Your task to perform on an android device: empty trash in the gmail app Image 0: 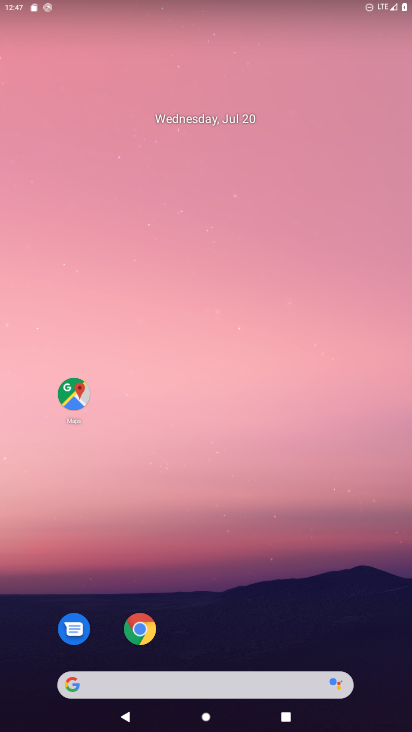
Step 0: drag from (174, 396) to (169, 149)
Your task to perform on an android device: empty trash in the gmail app Image 1: 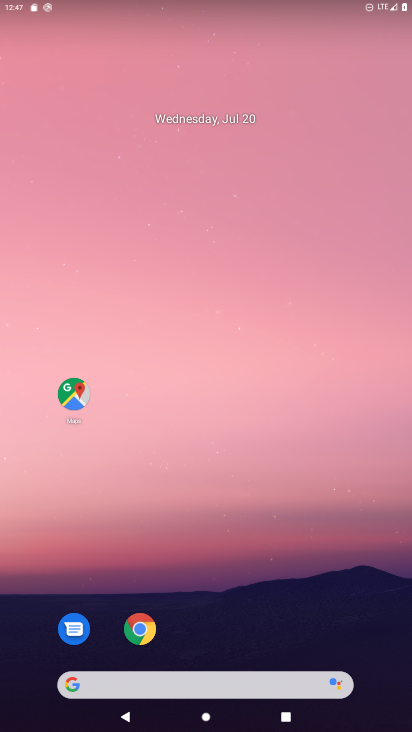
Step 1: drag from (184, 575) to (148, 114)
Your task to perform on an android device: empty trash in the gmail app Image 2: 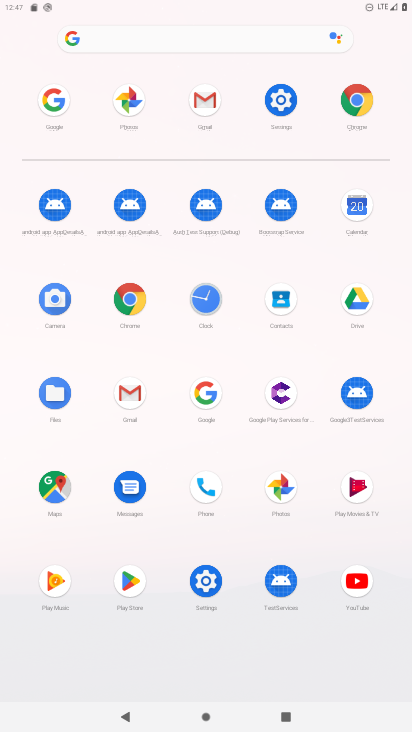
Step 2: click (203, 105)
Your task to perform on an android device: empty trash in the gmail app Image 3: 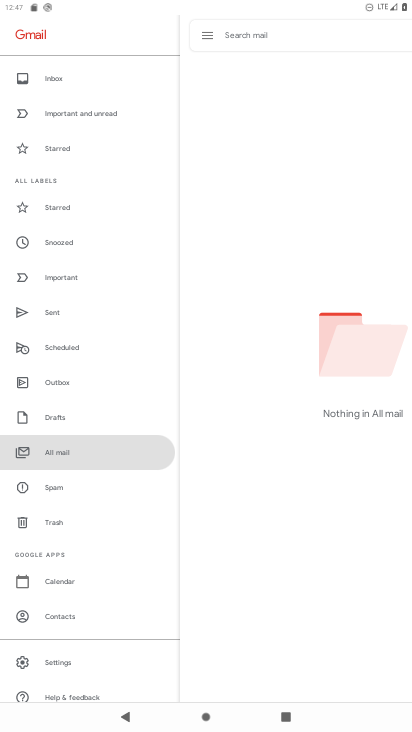
Step 3: click (57, 523)
Your task to perform on an android device: empty trash in the gmail app Image 4: 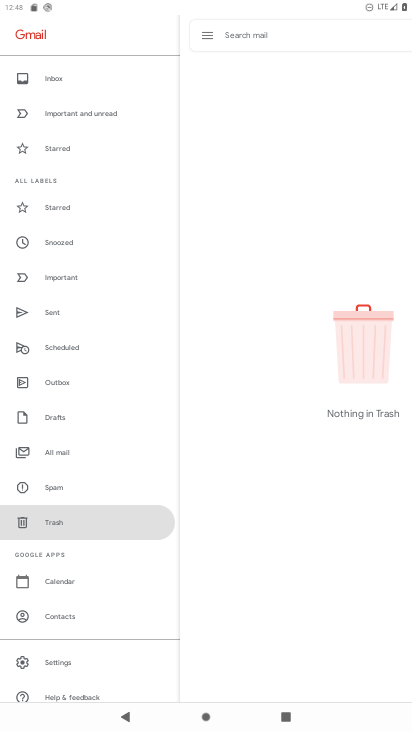
Step 4: task complete